Your task to perform on an android device: delete a single message in the gmail app Image 0: 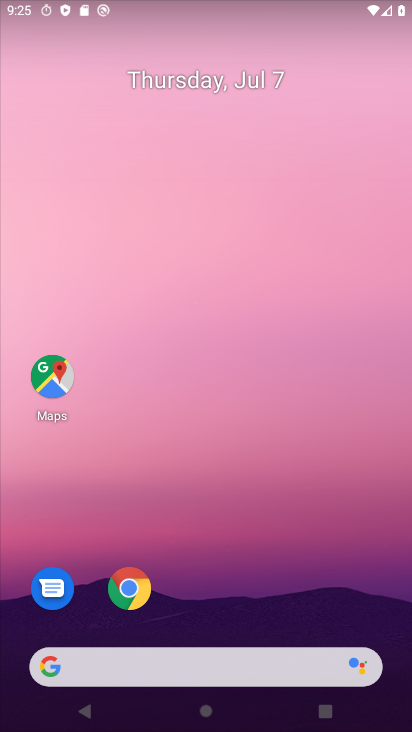
Step 0: drag from (249, 291) to (243, 13)
Your task to perform on an android device: delete a single message in the gmail app Image 1: 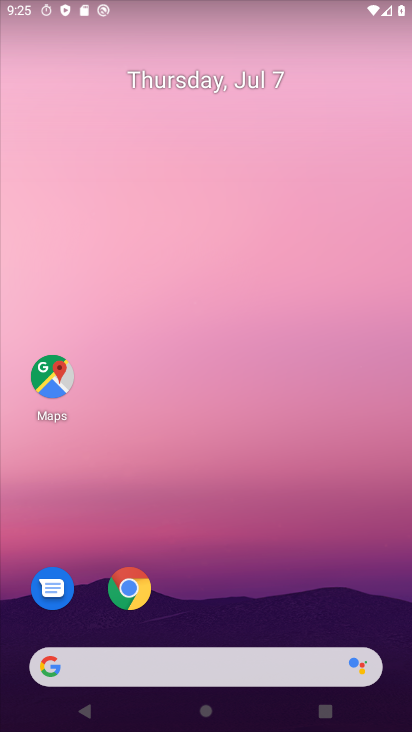
Step 1: drag from (252, 667) to (254, 36)
Your task to perform on an android device: delete a single message in the gmail app Image 2: 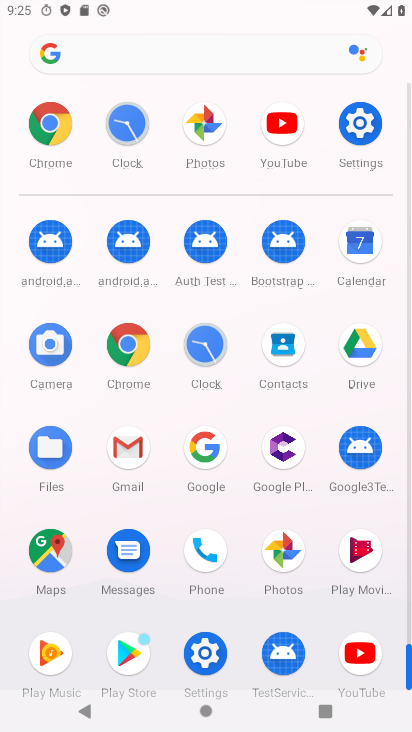
Step 2: click (127, 442)
Your task to perform on an android device: delete a single message in the gmail app Image 3: 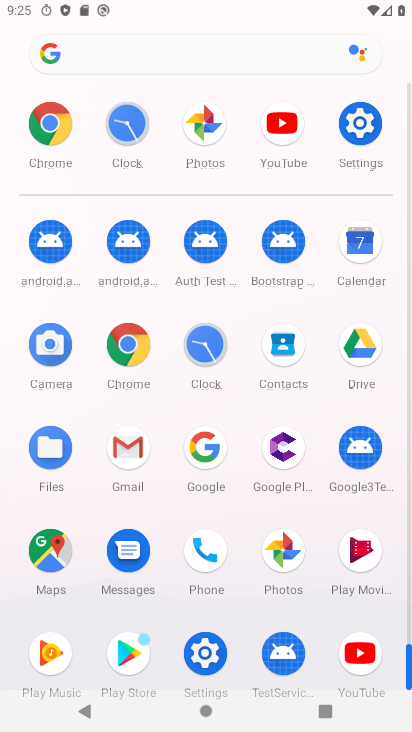
Step 3: click (130, 440)
Your task to perform on an android device: delete a single message in the gmail app Image 4: 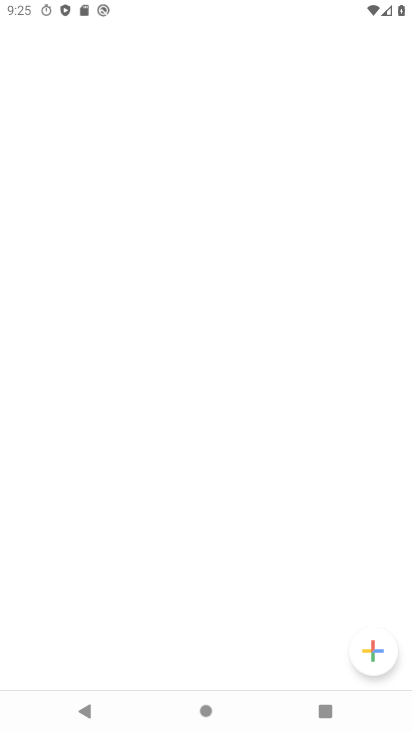
Step 4: click (136, 438)
Your task to perform on an android device: delete a single message in the gmail app Image 5: 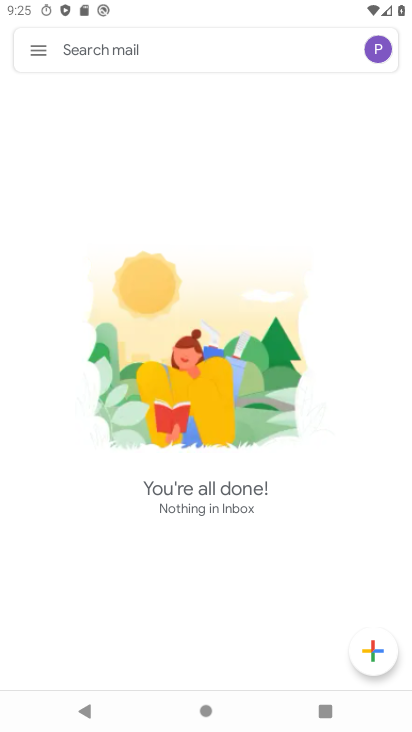
Step 5: click (46, 68)
Your task to perform on an android device: delete a single message in the gmail app Image 6: 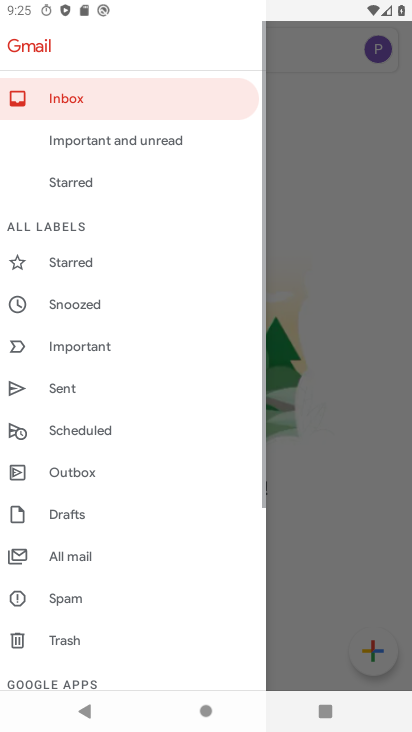
Step 6: click (45, 66)
Your task to perform on an android device: delete a single message in the gmail app Image 7: 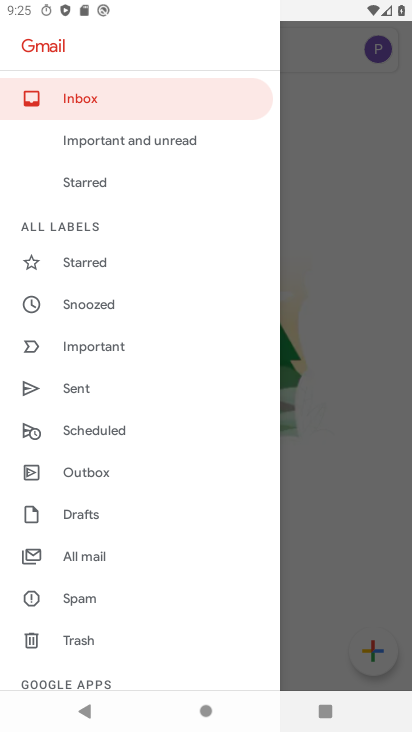
Step 7: click (90, 559)
Your task to perform on an android device: delete a single message in the gmail app Image 8: 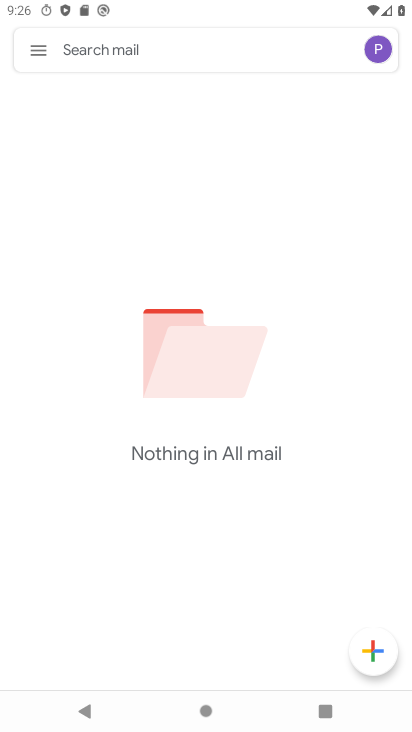
Step 8: task complete